Your task to perform on an android device: clear all cookies in the chrome app Image 0: 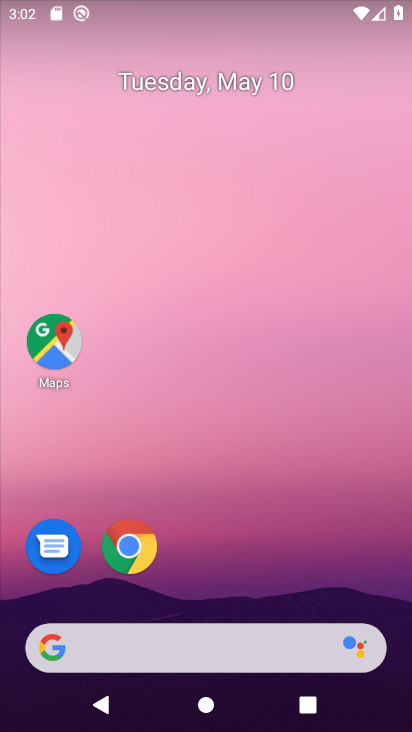
Step 0: click (138, 551)
Your task to perform on an android device: clear all cookies in the chrome app Image 1: 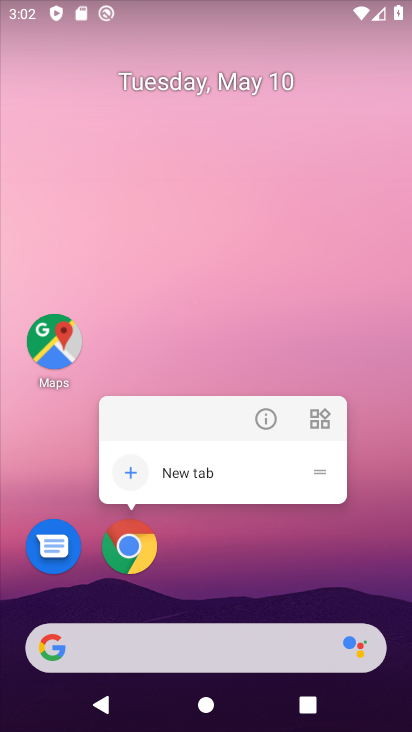
Step 1: click (143, 543)
Your task to perform on an android device: clear all cookies in the chrome app Image 2: 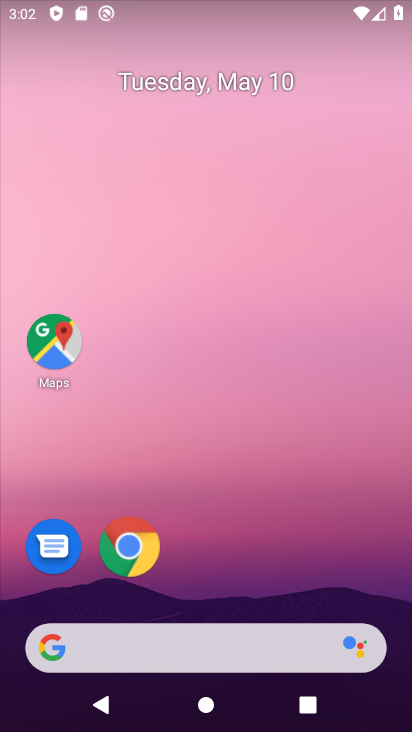
Step 2: click (143, 543)
Your task to perform on an android device: clear all cookies in the chrome app Image 3: 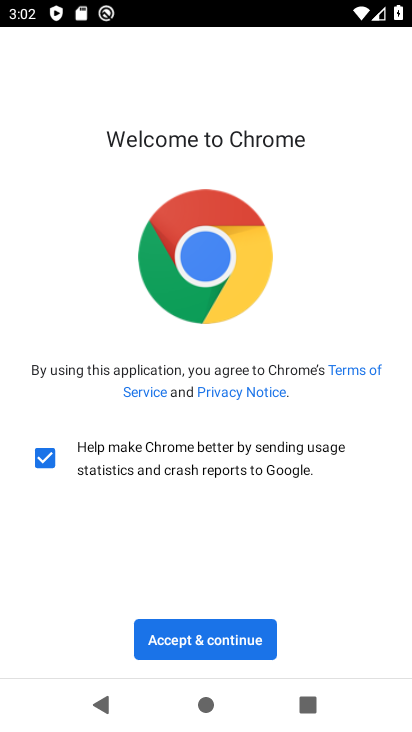
Step 3: click (231, 623)
Your task to perform on an android device: clear all cookies in the chrome app Image 4: 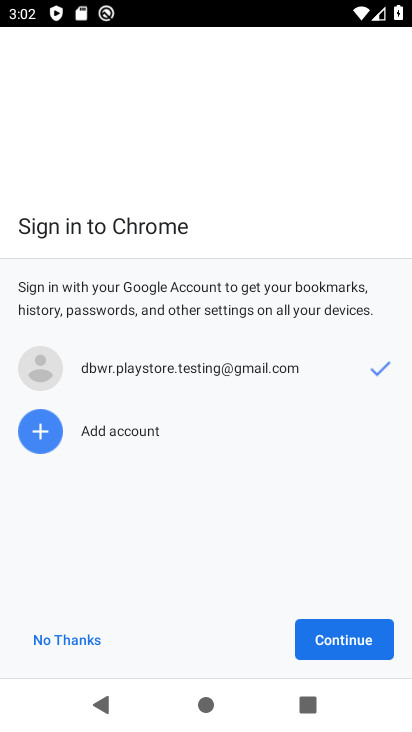
Step 4: click (385, 637)
Your task to perform on an android device: clear all cookies in the chrome app Image 5: 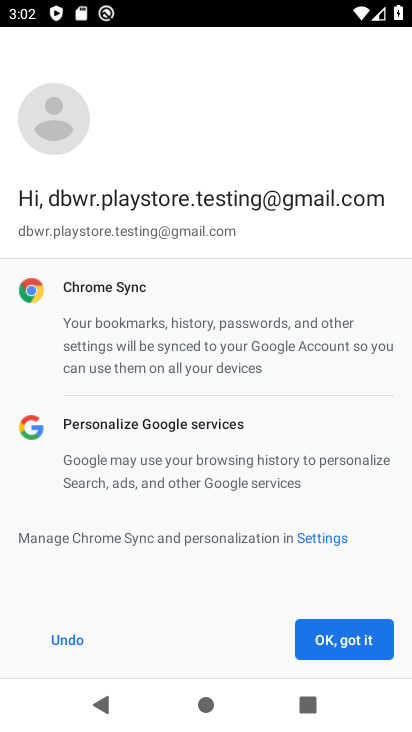
Step 5: click (364, 637)
Your task to perform on an android device: clear all cookies in the chrome app Image 6: 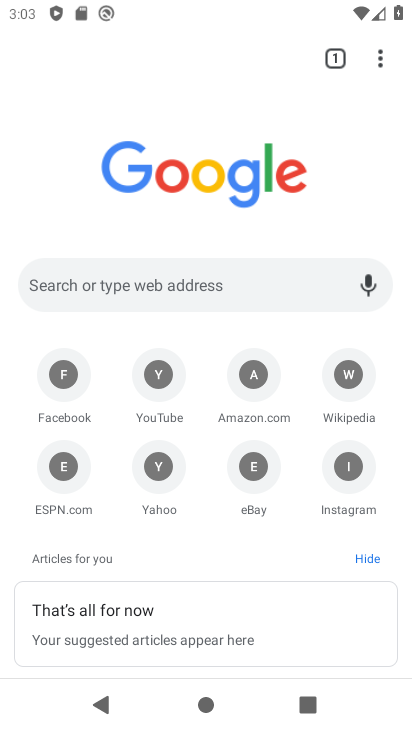
Step 6: click (391, 61)
Your task to perform on an android device: clear all cookies in the chrome app Image 7: 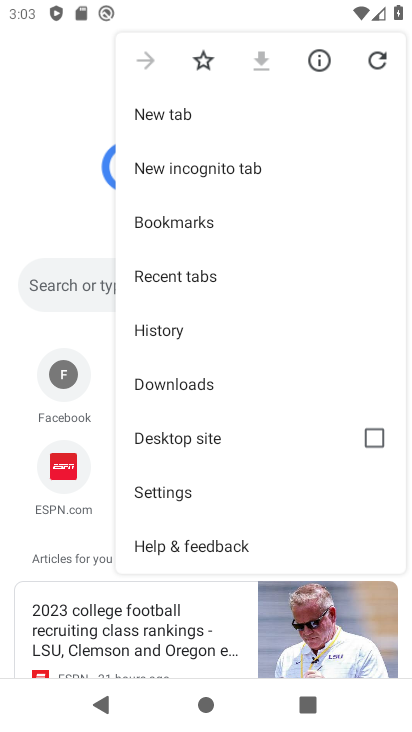
Step 7: click (160, 331)
Your task to perform on an android device: clear all cookies in the chrome app Image 8: 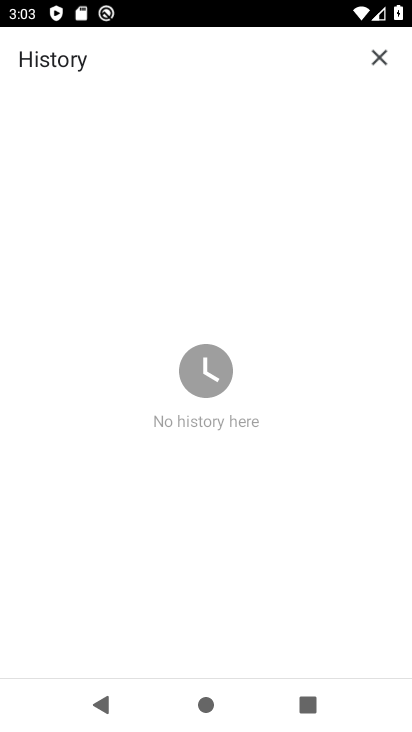
Step 8: task complete